Your task to perform on an android device: Open Google Maps and go to "Timeline" Image 0: 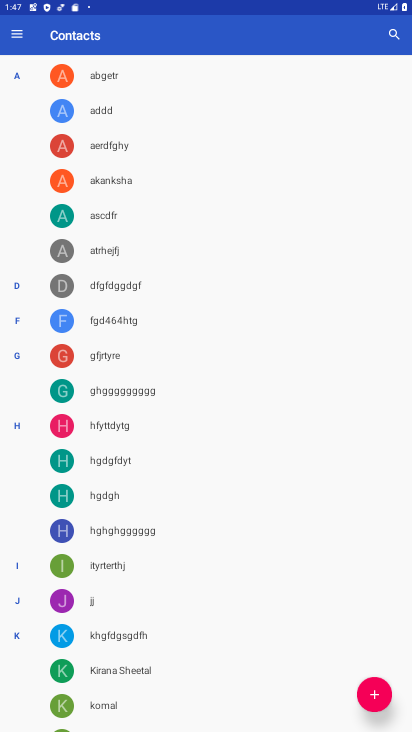
Step 0: press home button
Your task to perform on an android device: Open Google Maps and go to "Timeline" Image 1: 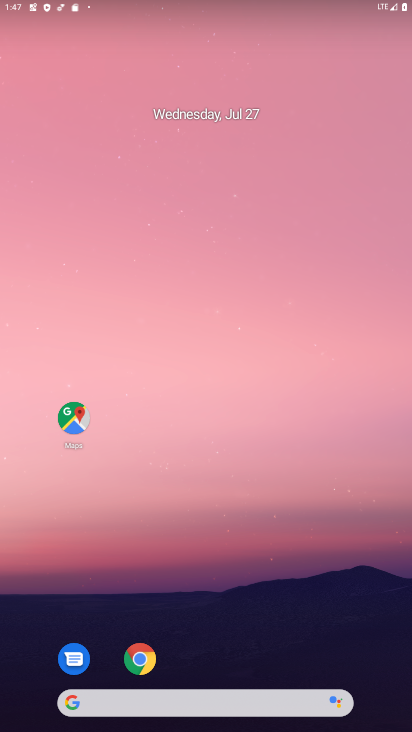
Step 1: drag from (217, 728) to (216, 225)
Your task to perform on an android device: Open Google Maps and go to "Timeline" Image 2: 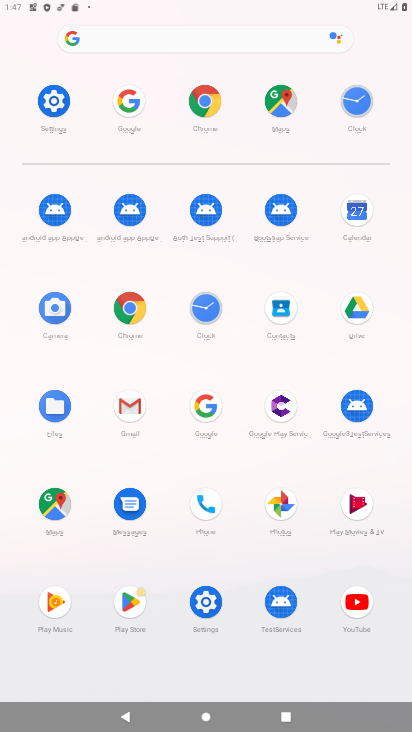
Step 2: click (54, 500)
Your task to perform on an android device: Open Google Maps and go to "Timeline" Image 3: 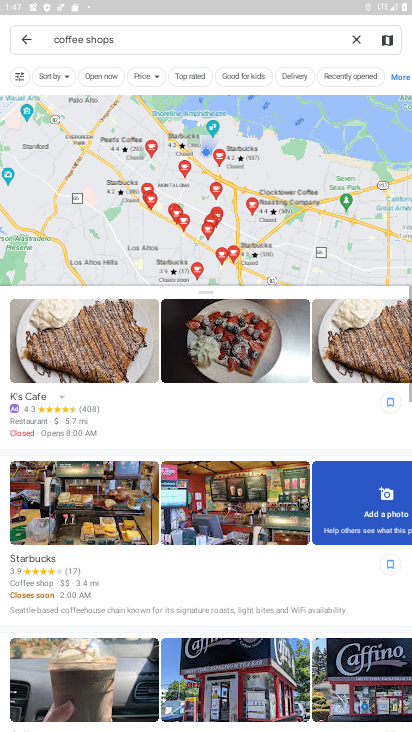
Step 3: click (28, 42)
Your task to perform on an android device: Open Google Maps and go to "Timeline" Image 4: 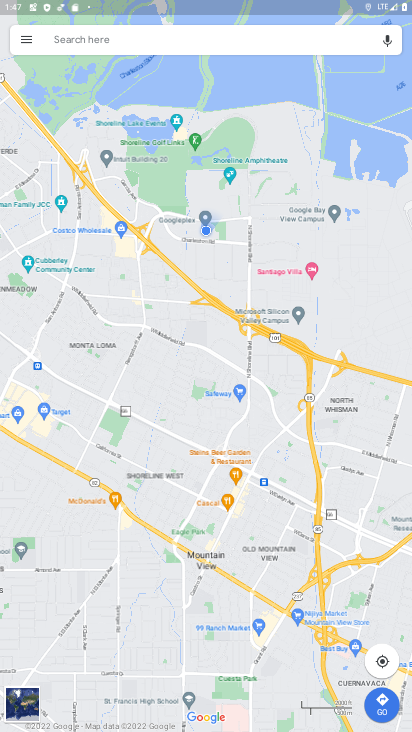
Step 4: click (25, 39)
Your task to perform on an android device: Open Google Maps and go to "Timeline" Image 5: 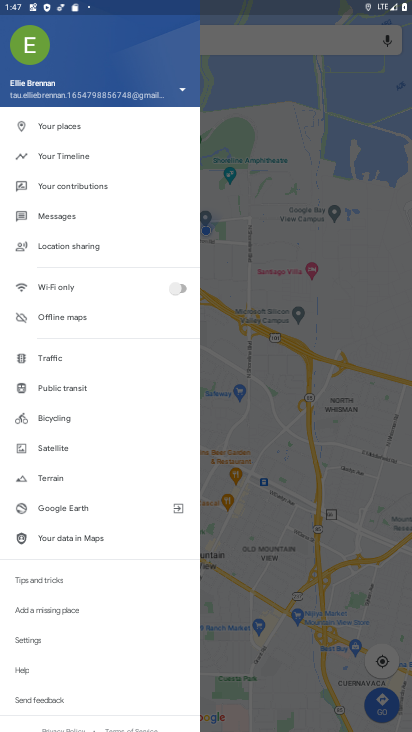
Step 5: click (77, 155)
Your task to perform on an android device: Open Google Maps and go to "Timeline" Image 6: 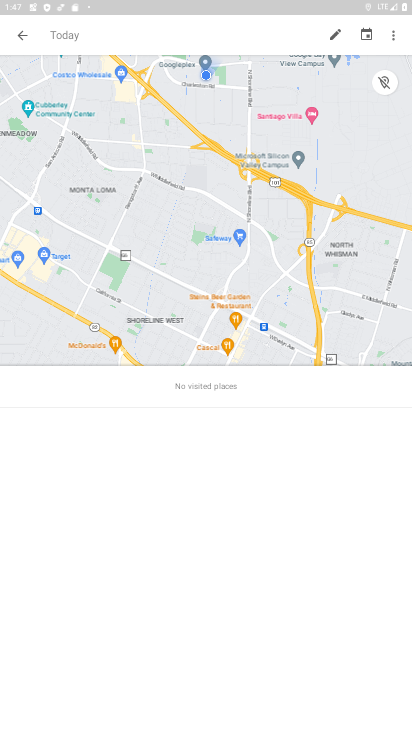
Step 6: task complete